Your task to perform on an android device: Open Yahoo.com Image 0: 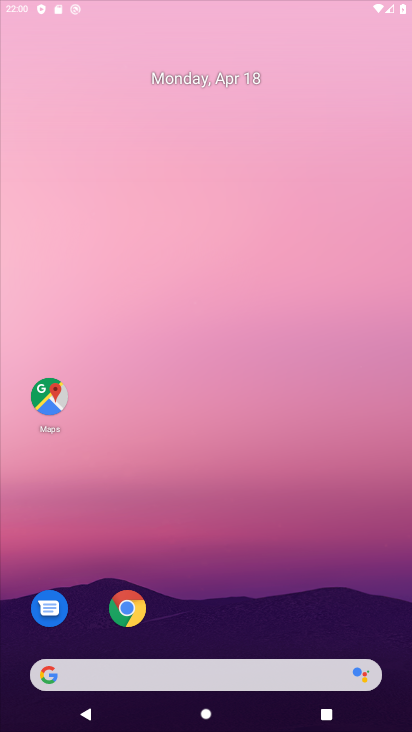
Step 0: click (199, 158)
Your task to perform on an android device: Open Yahoo.com Image 1: 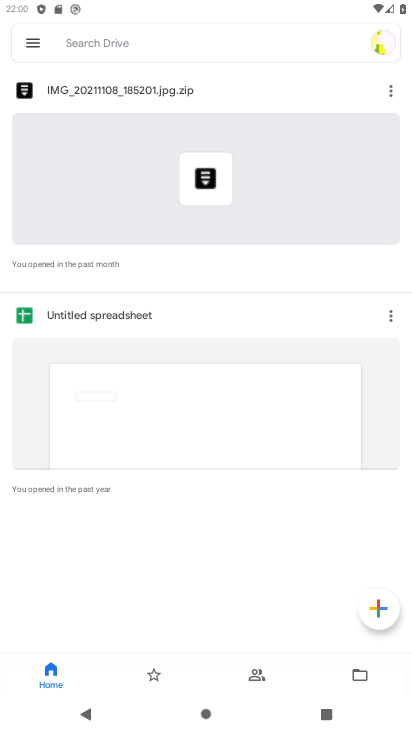
Step 1: press home button
Your task to perform on an android device: Open Yahoo.com Image 2: 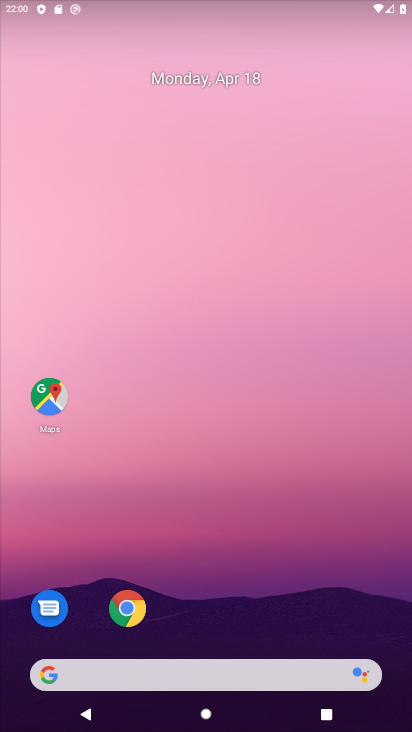
Step 2: drag from (231, 584) to (202, 70)
Your task to perform on an android device: Open Yahoo.com Image 3: 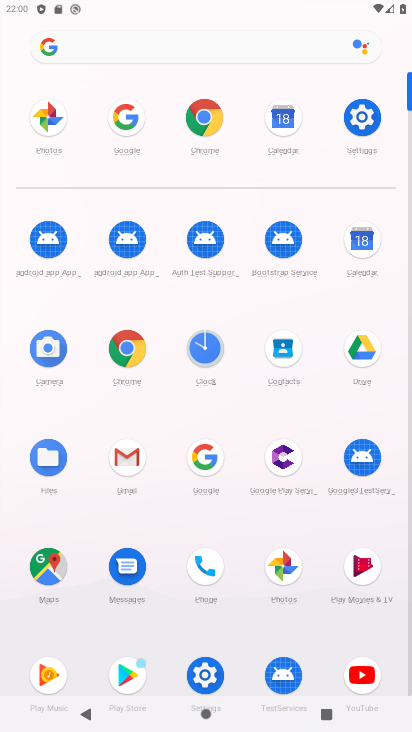
Step 3: click (205, 116)
Your task to perform on an android device: Open Yahoo.com Image 4: 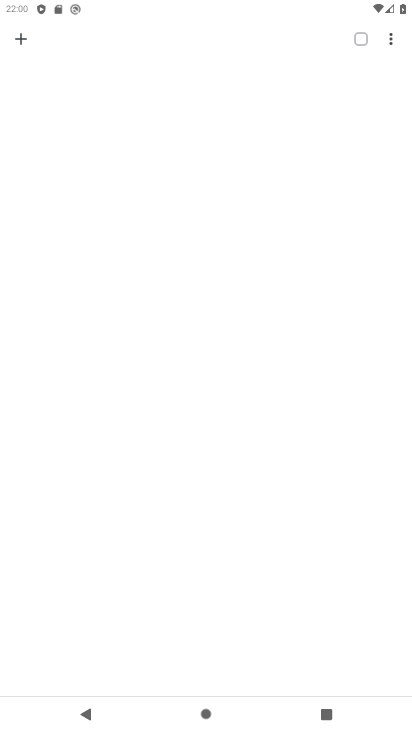
Step 4: press back button
Your task to perform on an android device: Open Yahoo.com Image 5: 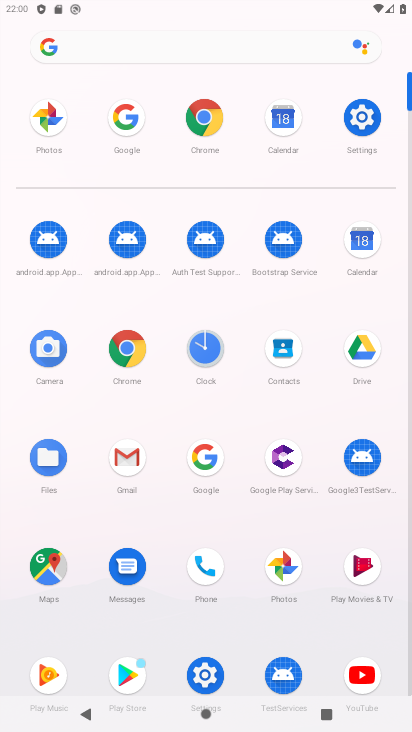
Step 5: click (203, 113)
Your task to perform on an android device: Open Yahoo.com Image 6: 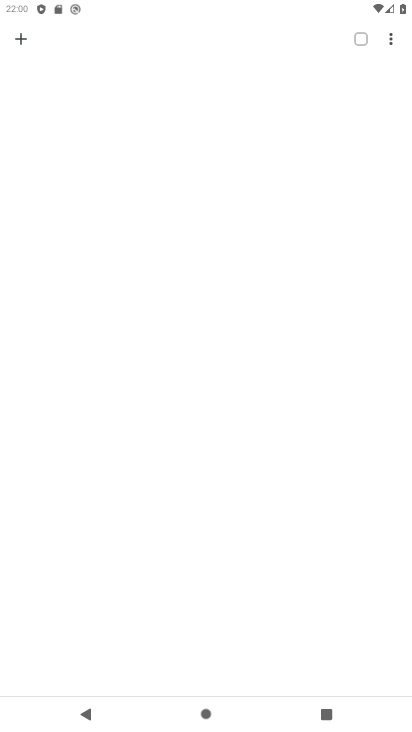
Step 6: click (16, 35)
Your task to perform on an android device: Open Yahoo.com Image 7: 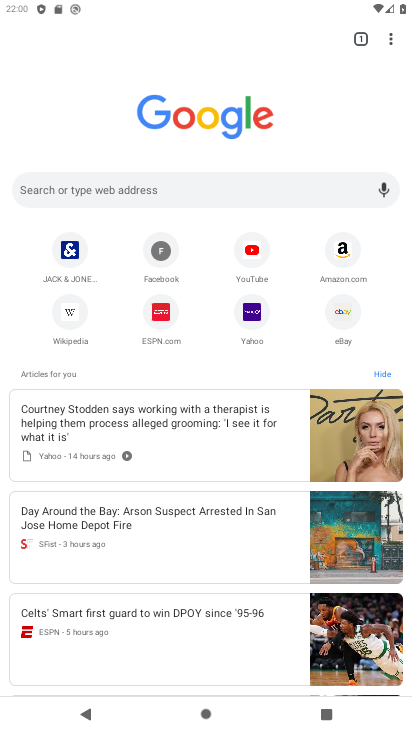
Step 7: click (250, 319)
Your task to perform on an android device: Open Yahoo.com Image 8: 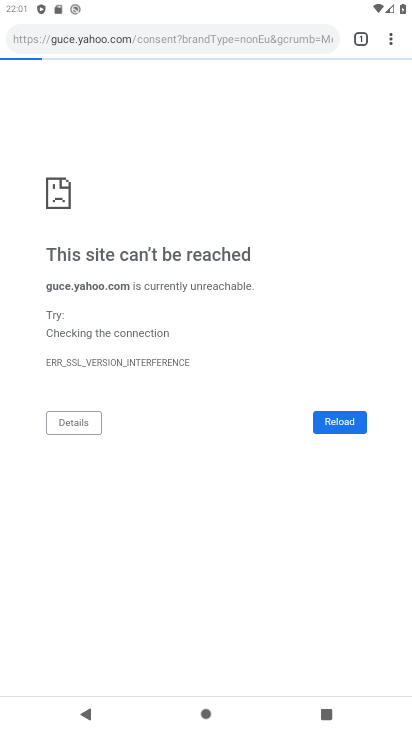
Step 8: task complete